Your task to perform on an android device: Open calendar and show me the first week of next month Image 0: 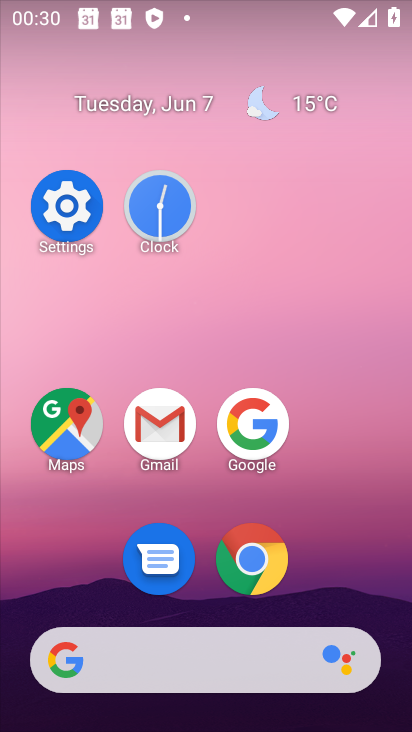
Step 0: drag from (349, 452) to (319, 86)
Your task to perform on an android device: Open calendar and show me the first week of next month Image 1: 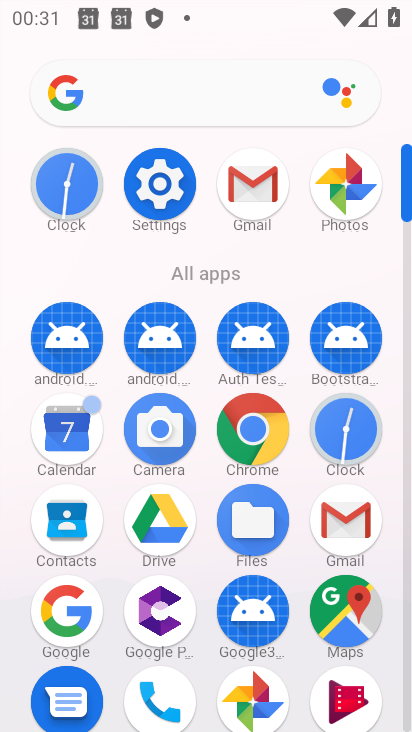
Step 1: drag from (56, 425) to (245, 233)
Your task to perform on an android device: Open calendar and show me the first week of next month Image 2: 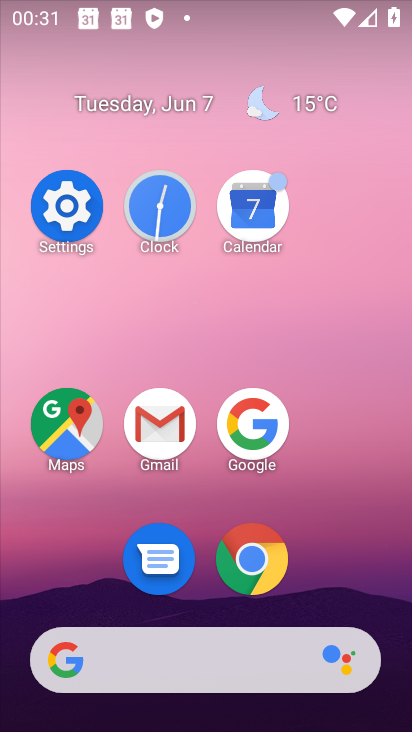
Step 2: click (239, 211)
Your task to perform on an android device: Open calendar and show me the first week of next month Image 3: 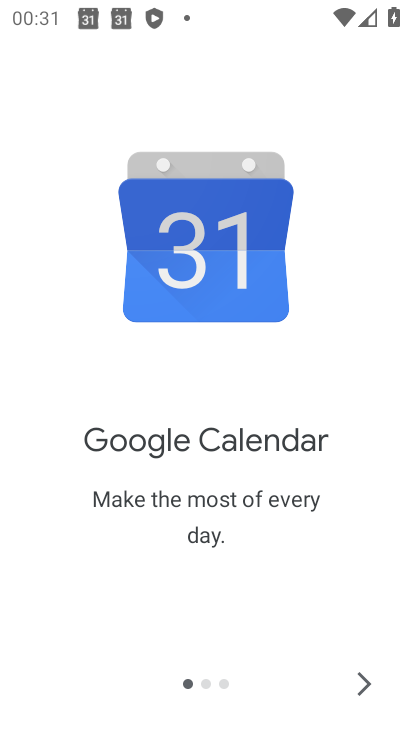
Step 3: click (351, 674)
Your task to perform on an android device: Open calendar and show me the first week of next month Image 4: 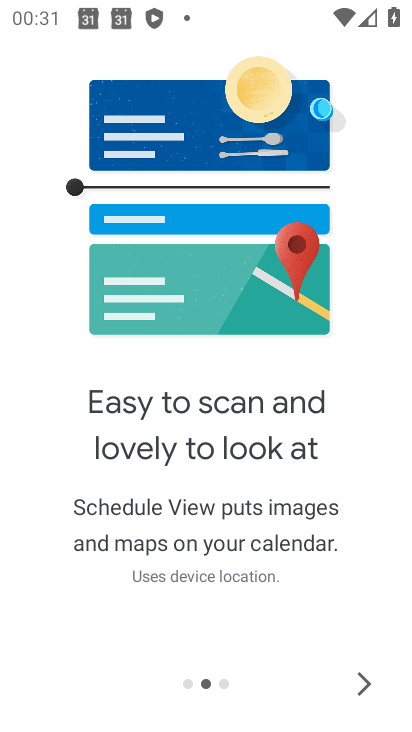
Step 4: click (351, 674)
Your task to perform on an android device: Open calendar and show me the first week of next month Image 5: 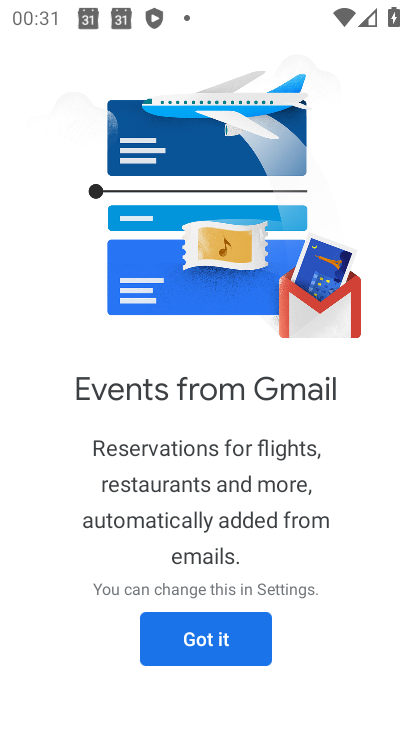
Step 5: click (263, 642)
Your task to perform on an android device: Open calendar and show me the first week of next month Image 6: 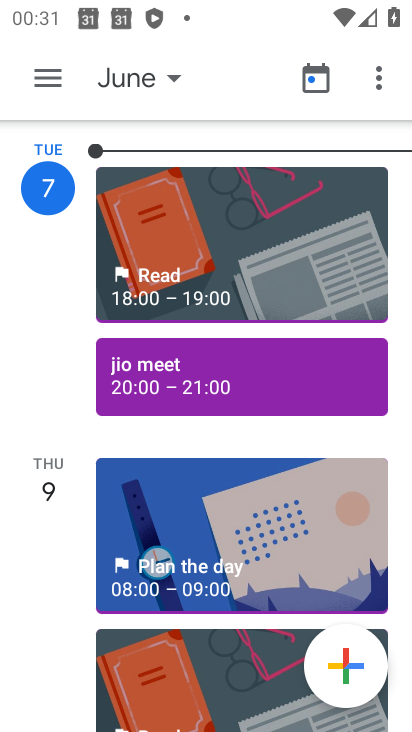
Step 6: click (171, 85)
Your task to perform on an android device: Open calendar and show me the first week of next month Image 7: 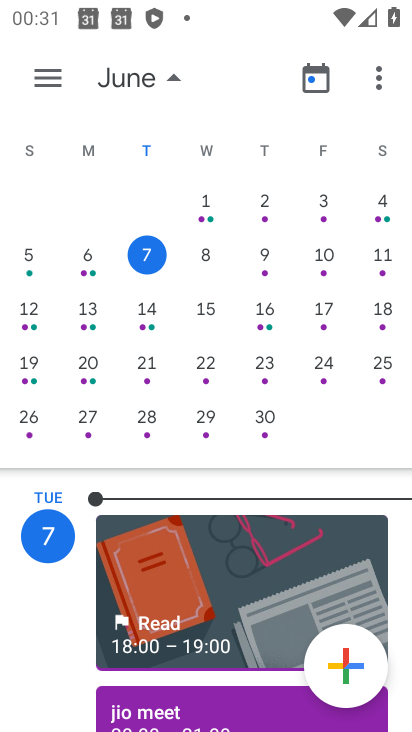
Step 7: drag from (371, 319) to (26, 325)
Your task to perform on an android device: Open calendar and show me the first week of next month Image 8: 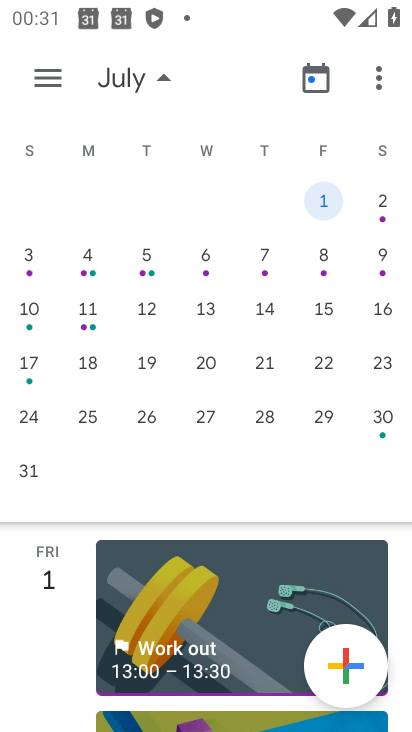
Step 8: click (43, 99)
Your task to perform on an android device: Open calendar and show me the first week of next month Image 9: 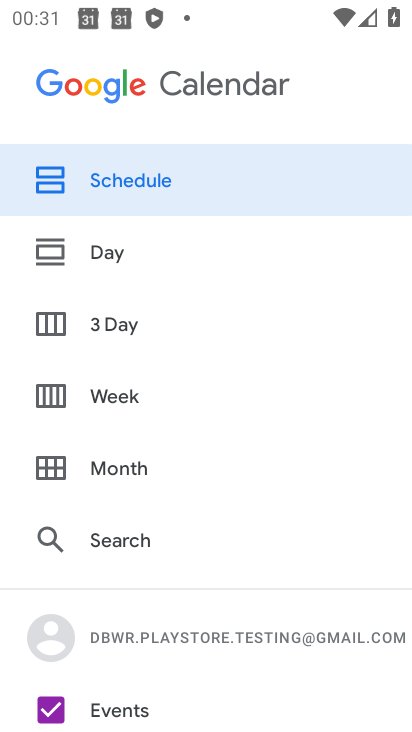
Step 9: click (150, 378)
Your task to perform on an android device: Open calendar and show me the first week of next month Image 10: 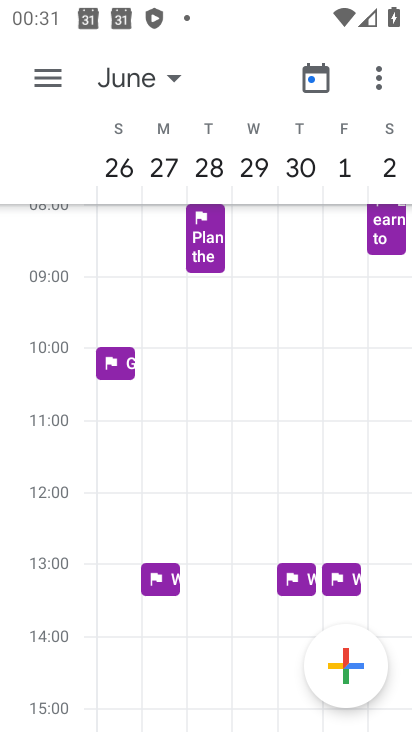
Step 10: task complete